Your task to perform on an android device: Go to Google Image 0: 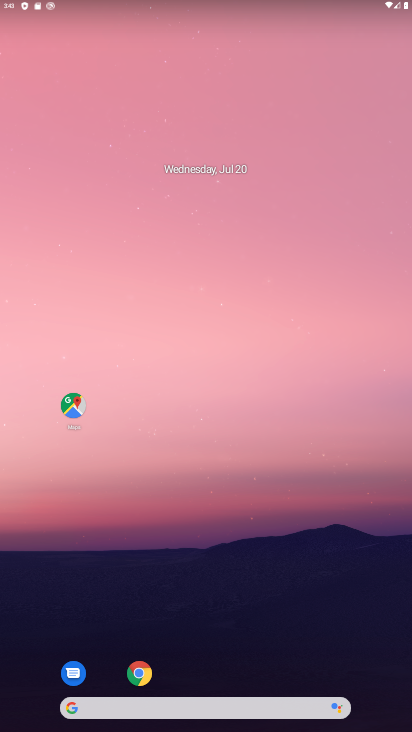
Step 0: drag from (272, 419) to (226, 26)
Your task to perform on an android device: Go to Google Image 1: 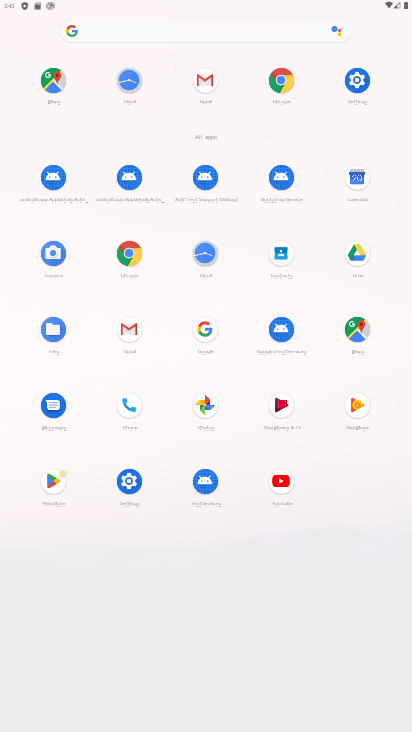
Step 1: click (211, 334)
Your task to perform on an android device: Go to Google Image 2: 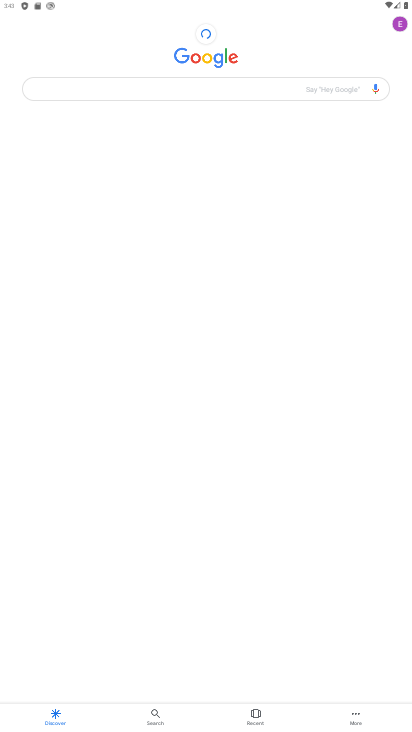
Step 2: task complete